Your task to perform on an android device: change your default location settings in chrome Image 0: 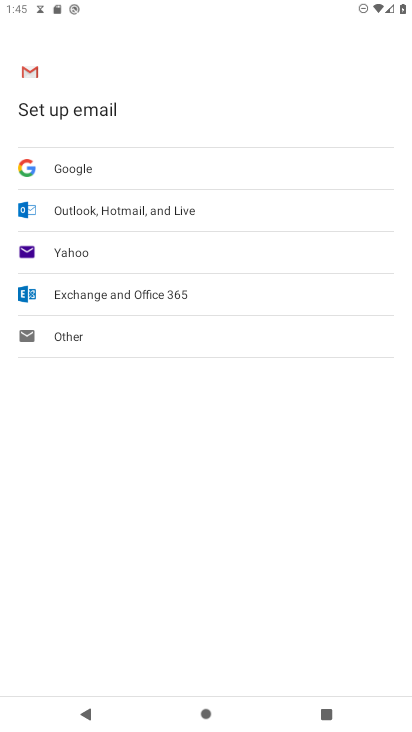
Step 0: press home button
Your task to perform on an android device: change your default location settings in chrome Image 1: 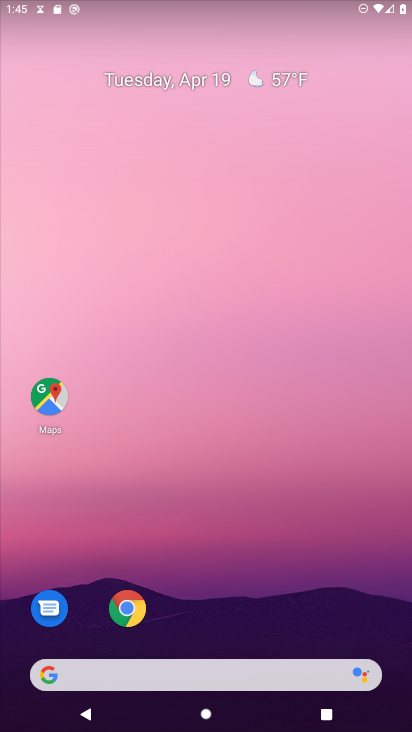
Step 1: click (133, 614)
Your task to perform on an android device: change your default location settings in chrome Image 2: 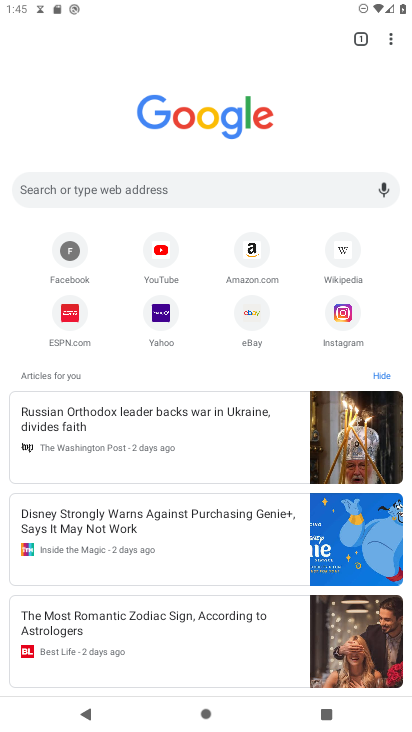
Step 2: click (390, 34)
Your task to perform on an android device: change your default location settings in chrome Image 3: 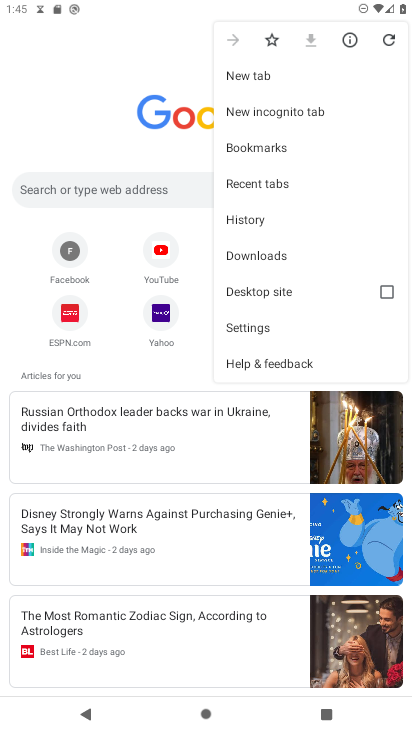
Step 3: click (254, 326)
Your task to perform on an android device: change your default location settings in chrome Image 4: 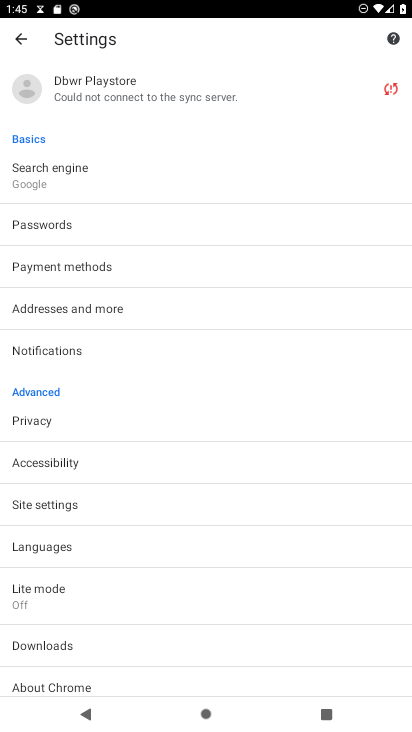
Step 4: drag from (77, 611) to (59, 375)
Your task to perform on an android device: change your default location settings in chrome Image 5: 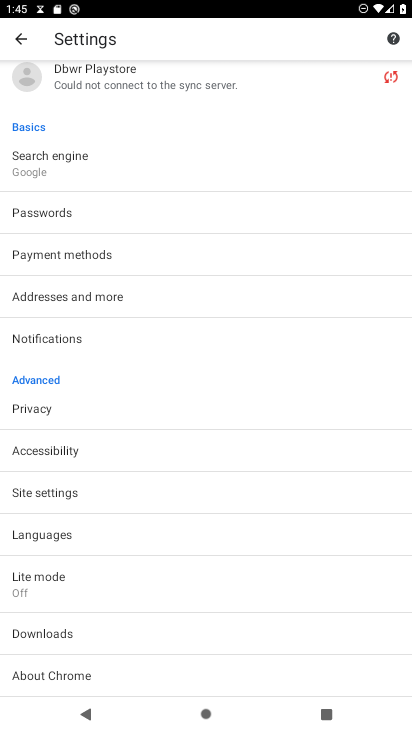
Step 5: click (42, 496)
Your task to perform on an android device: change your default location settings in chrome Image 6: 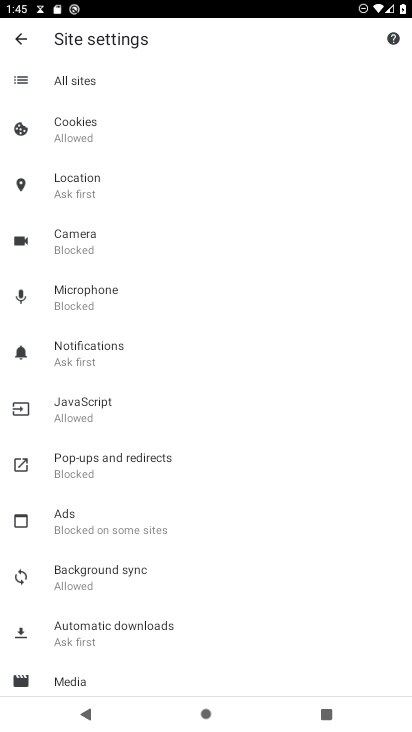
Step 6: click (86, 183)
Your task to perform on an android device: change your default location settings in chrome Image 7: 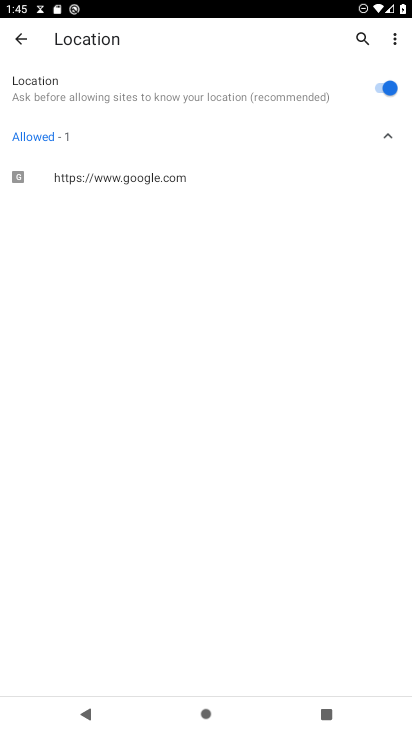
Step 7: click (378, 84)
Your task to perform on an android device: change your default location settings in chrome Image 8: 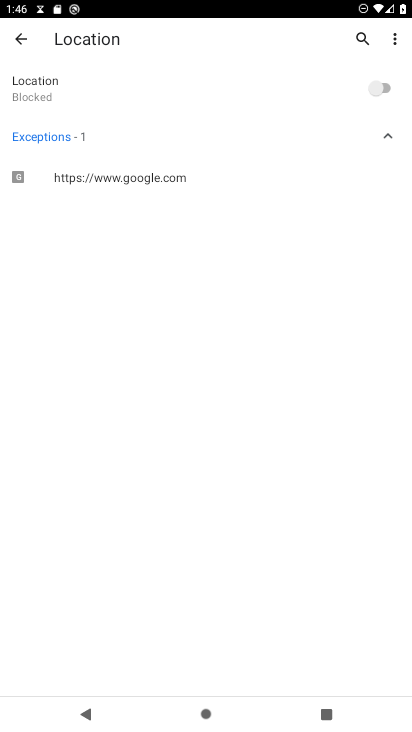
Step 8: task complete